Your task to perform on an android device: What's on my calendar today? Image 0: 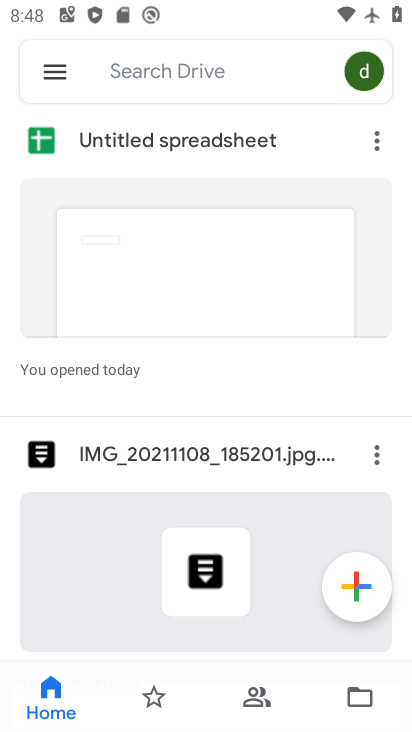
Step 0: press home button
Your task to perform on an android device: What's on my calendar today? Image 1: 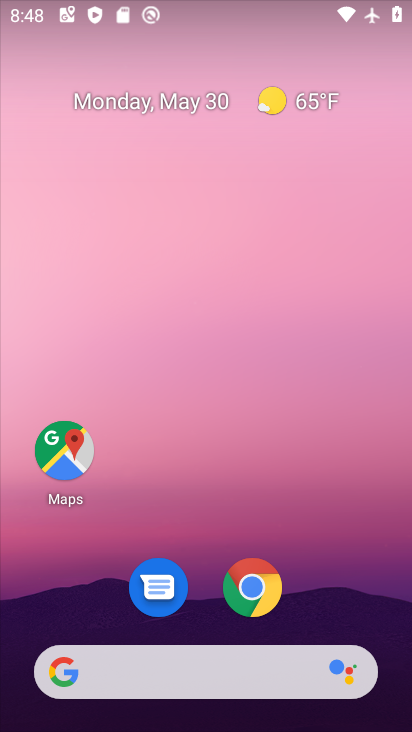
Step 1: drag from (141, 669) to (320, 129)
Your task to perform on an android device: What's on my calendar today? Image 2: 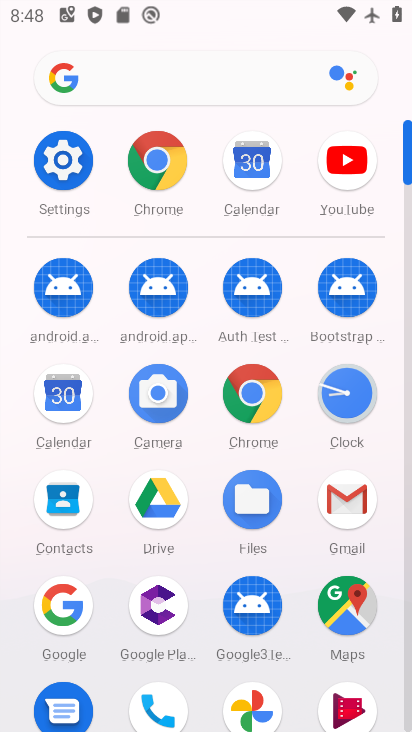
Step 2: click (262, 160)
Your task to perform on an android device: What's on my calendar today? Image 3: 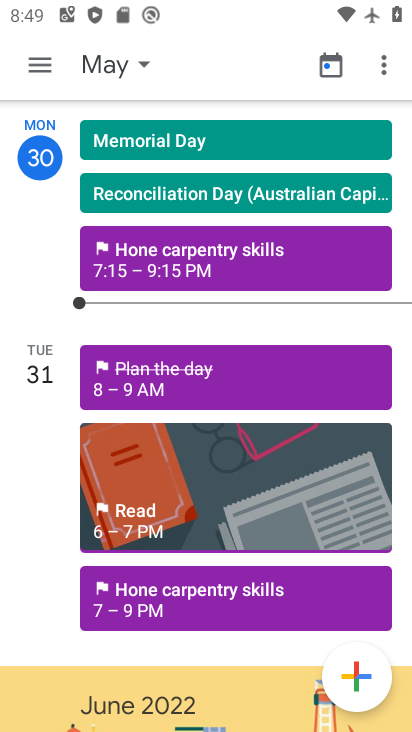
Step 3: task complete